Your task to perform on an android device: change alarm snooze length Image 0: 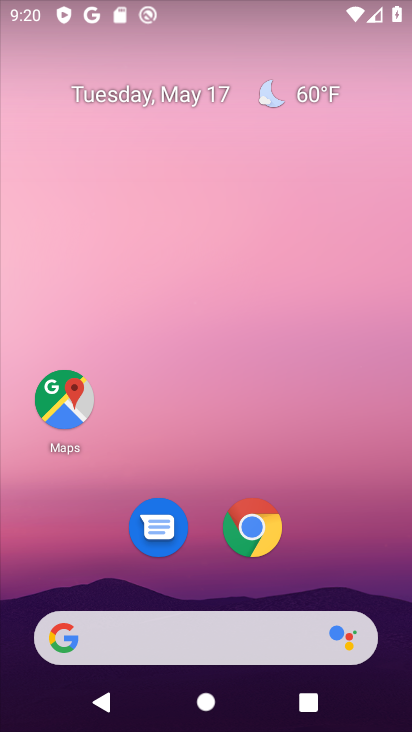
Step 0: drag from (204, 468) to (241, 13)
Your task to perform on an android device: change alarm snooze length Image 1: 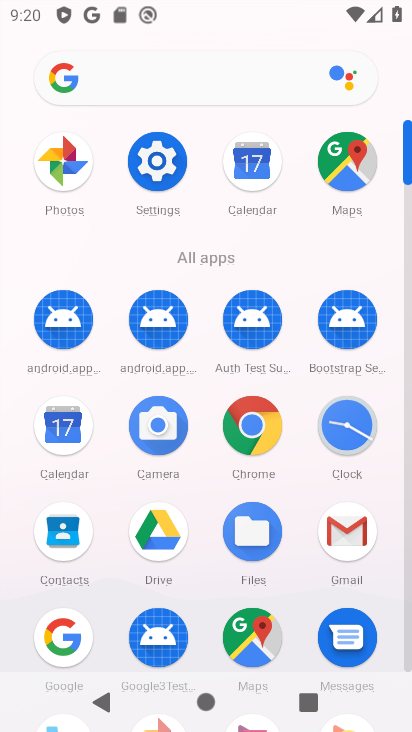
Step 1: click (350, 417)
Your task to perform on an android device: change alarm snooze length Image 2: 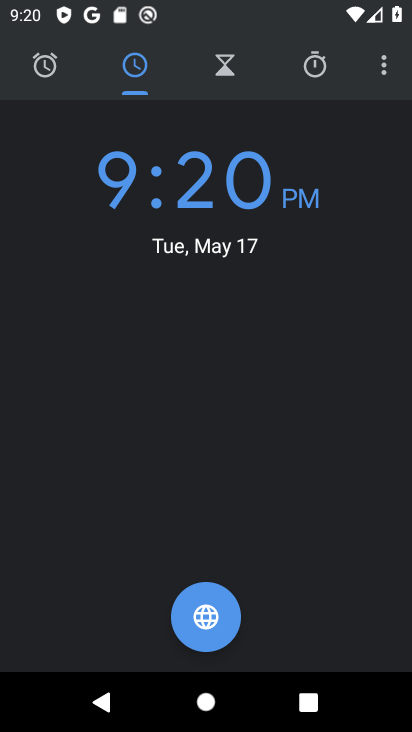
Step 2: click (382, 61)
Your task to perform on an android device: change alarm snooze length Image 3: 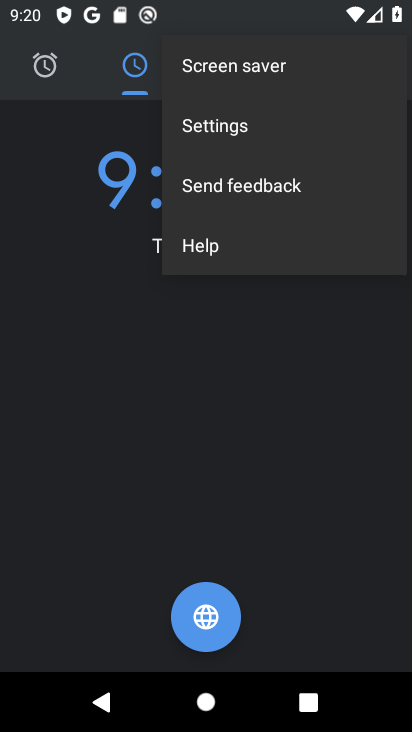
Step 3: click (242, 132)
Your task to perform on an android device: change alarm snooze length Image 4: 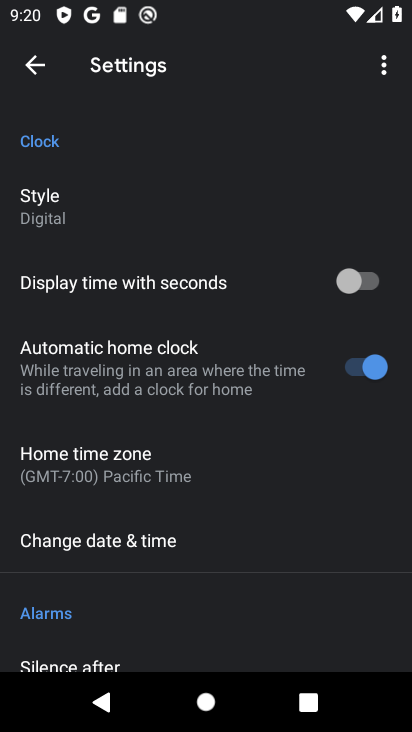
Step 4: drag from (131, 512) to (200, 44)
Your task to perform on an android device: change alarm snooze length Image 5: 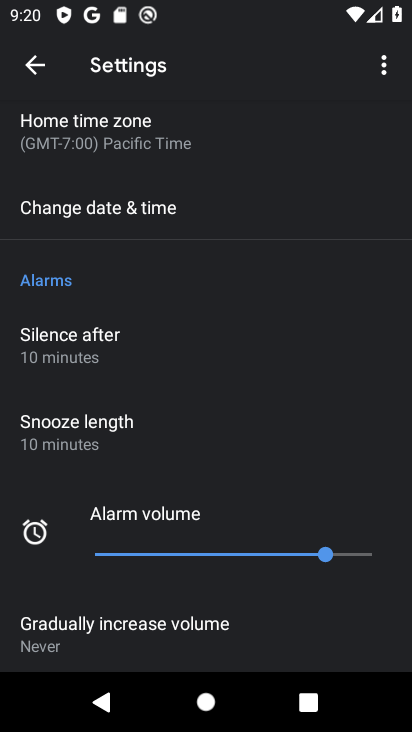
Step 5: click (130, 438)
Your task to perform on an android device: change alarm snooze length Image 6: 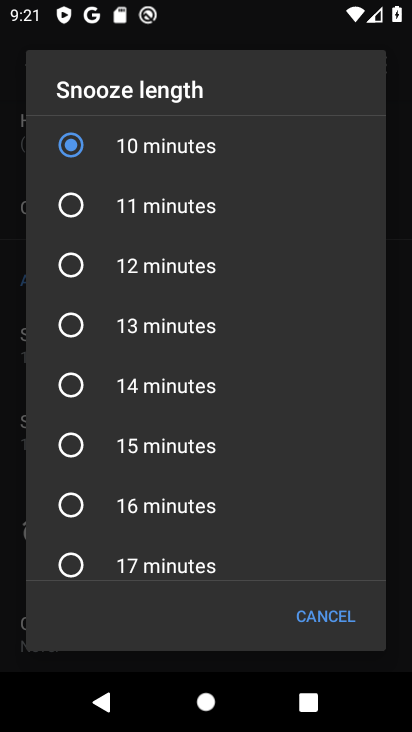
Step 6: click (69, 460)
Your task to perform on an android device: change alarm snooze length Image 7: 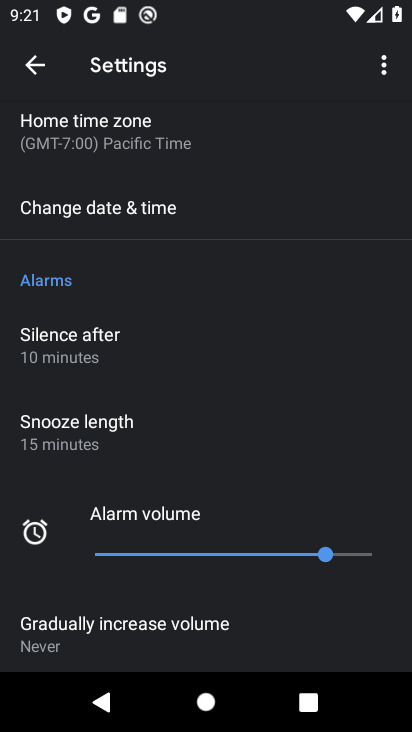
Step 7: task complete